Your task to perform on an android device: delete the emails in spam in the gmail app Image 0: 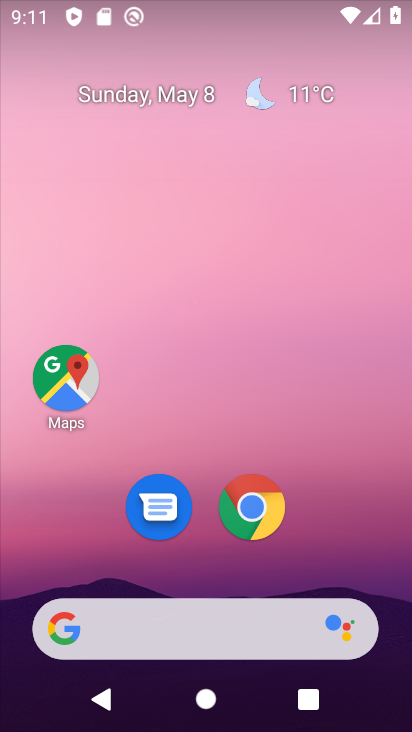
Step 0: drag from (193, 598) to (289, 196)
Your task to perform on an android device: delete the emails in spam in the gmail app Image 1: 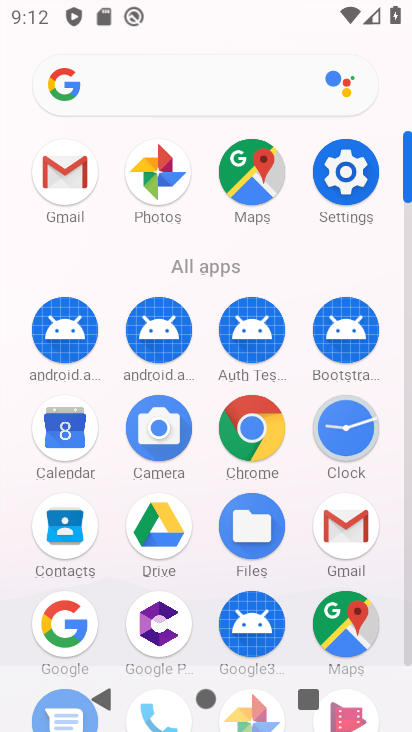
Step 1: click (355, 531)
Your task to perform on an android device: delete the emails in spam in the gmail app Image 2: 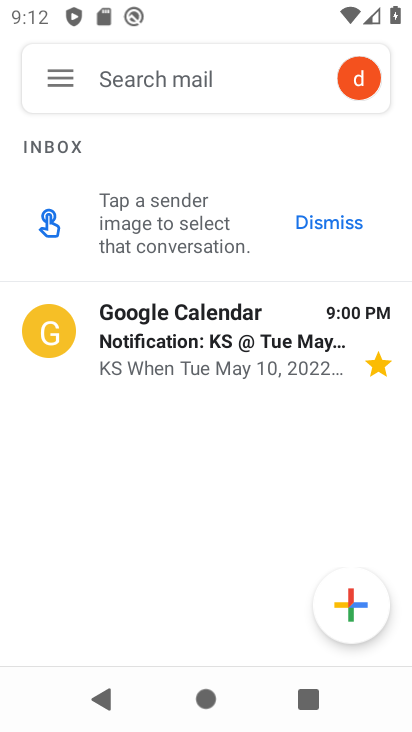
Step 2: click (68, 70)
Your task to perform on an android device: delete the emails in spam in the gmail app Image 3: 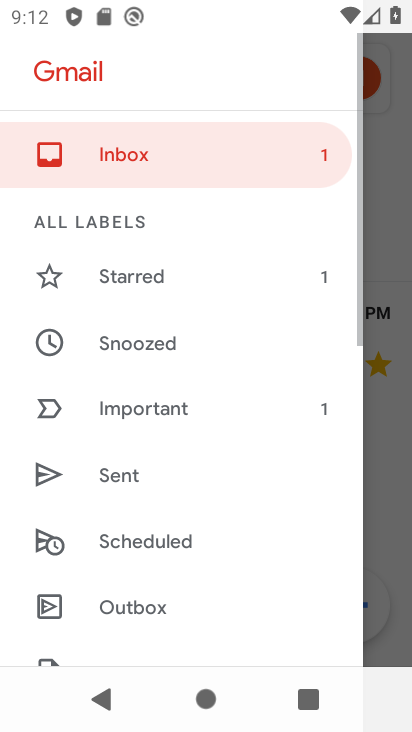
Step 3: drag from (140, 594) to (173, 431)
Your task to perform on an android device: delete the emails in spam in the gmail app Image 4: 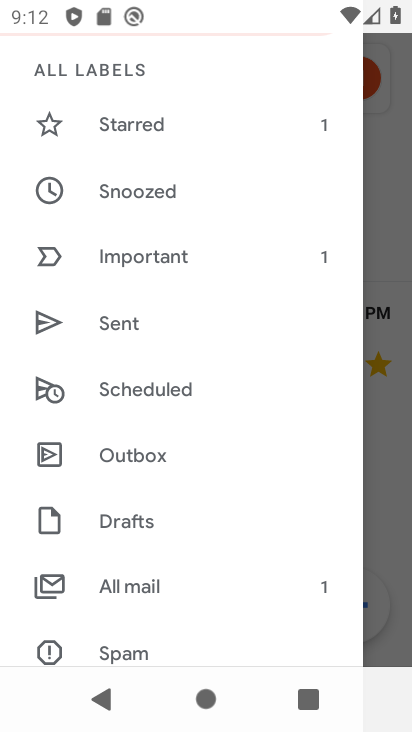
Step 4: drag from (173, 431) to (243, 231)
Your task to perform on an android device: delete the emails in spam in the gmail app Image 5: 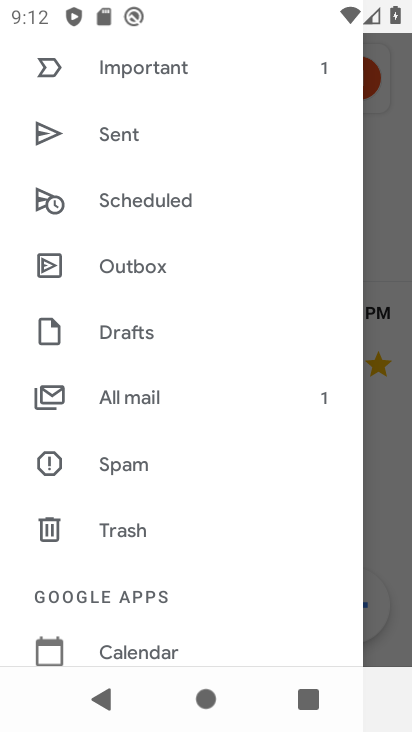
Step 5: click (174, 462)
Your task to perform on an android device: delete the emails in spam in the gmail app Image 6: 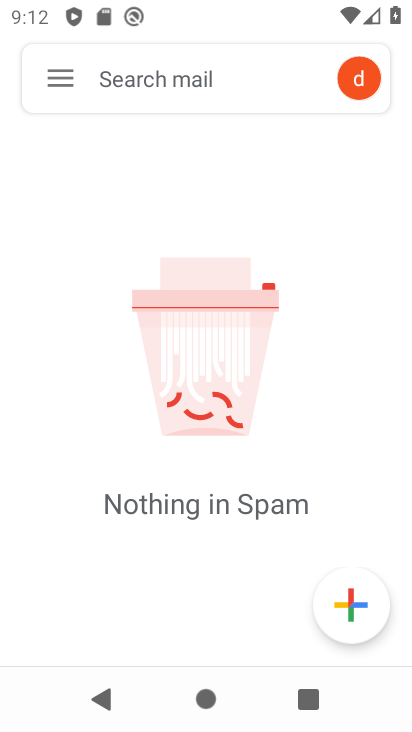
Step 6: task complete